Your task to perform on an android device: Open Reddit.com Image 0: 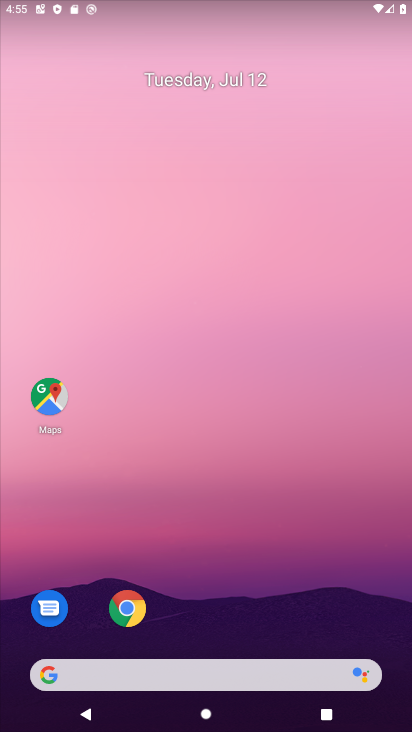
Step 0: click (211, 674)
Your task to perform on an android device: Open Reddit.com Image 1: 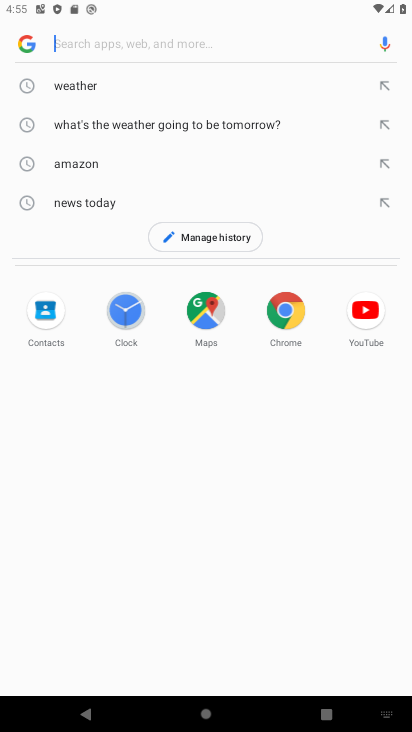
Step 1: type "reddit.com"
Your task to perform on an android device: Open Reddit.com Image 2: 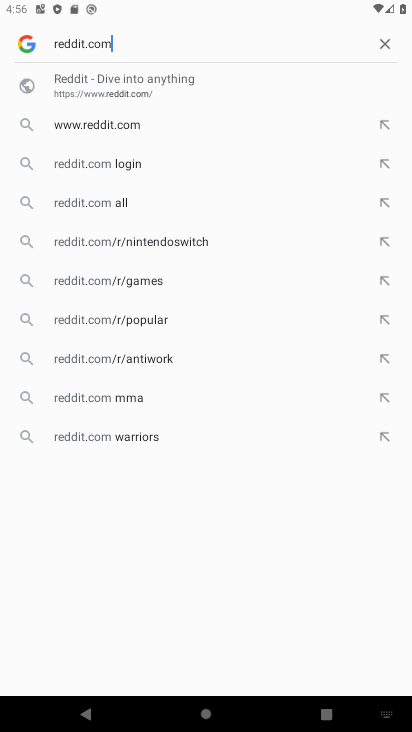
Step 2: click (148, 81)
Your task to perform on an android device: Open Reddit.com Image 3: 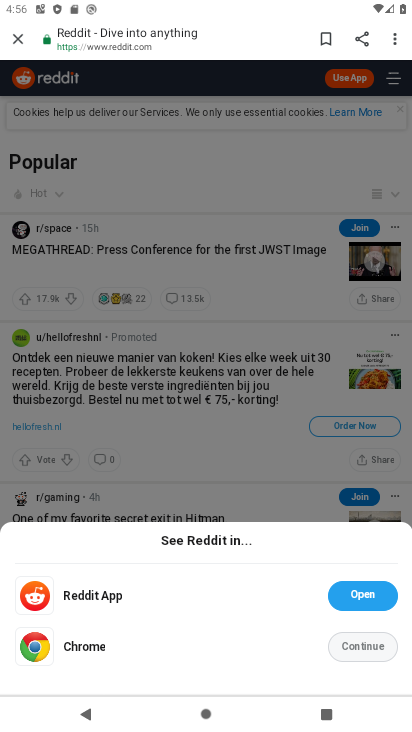
Step 3: task complete